Your task to perform on an android device: set default search engine in the chrome app Image 0: 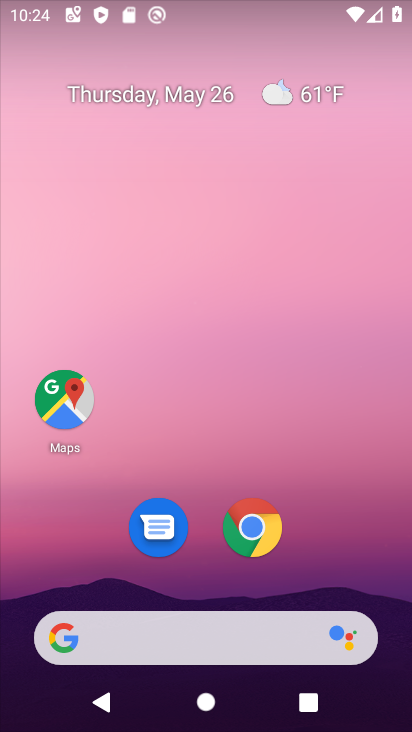
Step 0: click (246, 522)
Your task to perform on an android device: set default search engine in the chrome app Image 1: 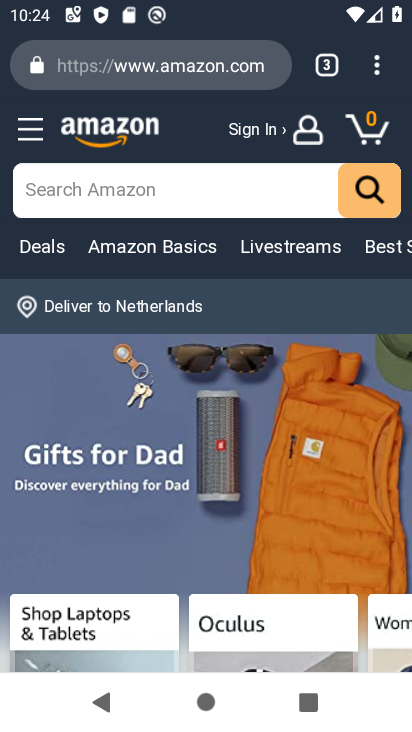
Step 1: drag from (372, 59) to (183, 575)
Your task to perform on an android device: set default search engine in the chrome app Image 2: 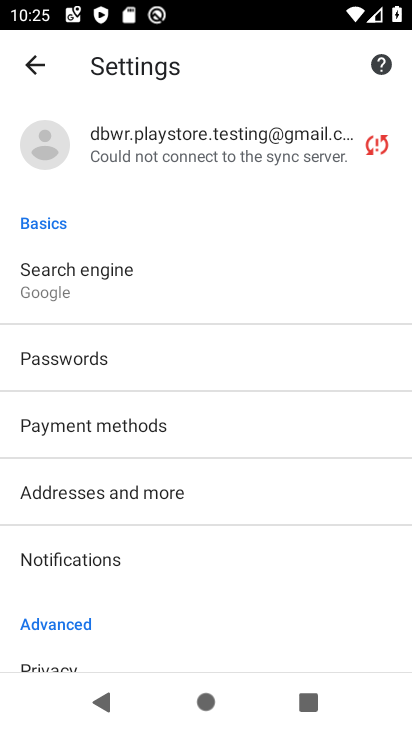
Step 2: click (50, 292)
Your task to perform on an android device: set default search engine in the chrome app Image 3: 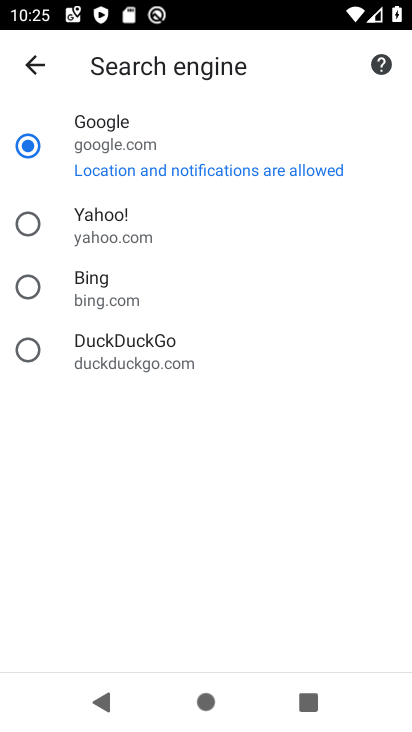
Step 3: click (92, 225)
Your task to perform on an android device: set default search engine in the chrome app Image 4: 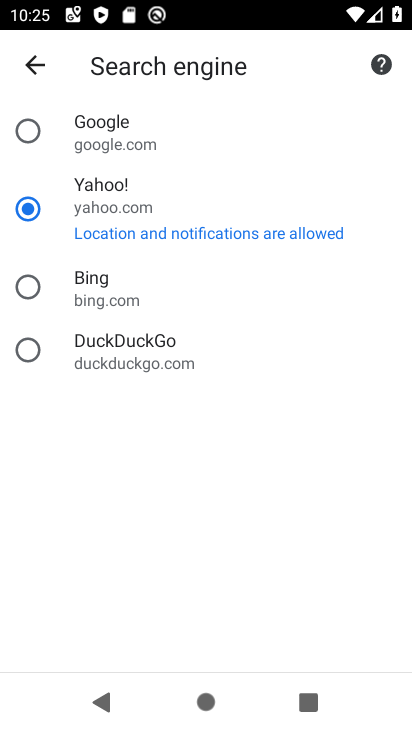
Step 4: task complete